Your task to perform on an android device: search for starred emails in the gmail app Image 0: 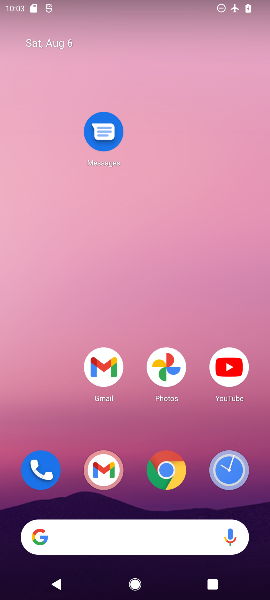
Step 0: drag from (165, 570) to (263, 176)
Your task to perform on an android device: search for starred emails in the gmail app Image 1: 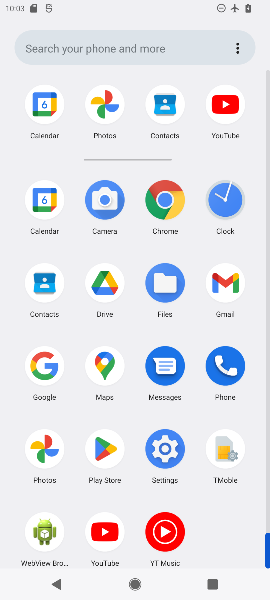
Step 1: click (227, 292)
Your task to perform on an android device: search for starred emails in the gmail app Image 2: 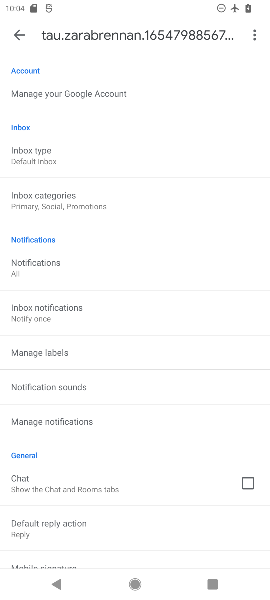
Step 2: click (29, 39)
Your task to perform on an android device: search for starred emails in the gmail app Image 3: 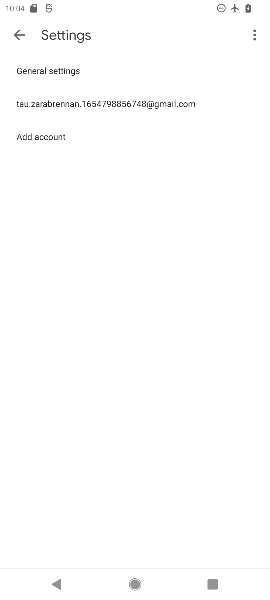
Step 3: click (20, 24)
Your task to perform on an android device: search for starred emails in the gmail app Image 4: 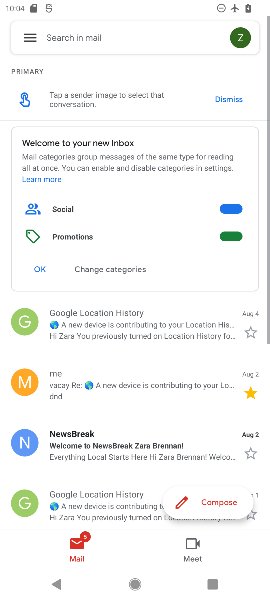
Step 4: click (36, 35)
Your task to perform on an android device: search for starred emails in the gmail app Image 5: 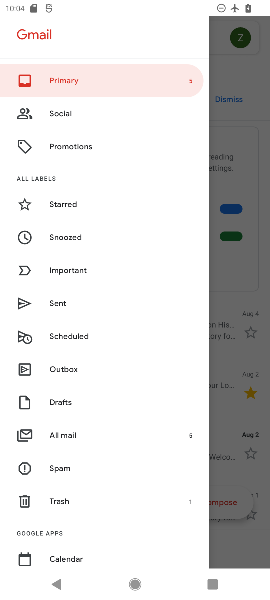
Step 5: click (86, 201)
Your task to perform on an android device: search for starred emails in the gmail app Image 6: 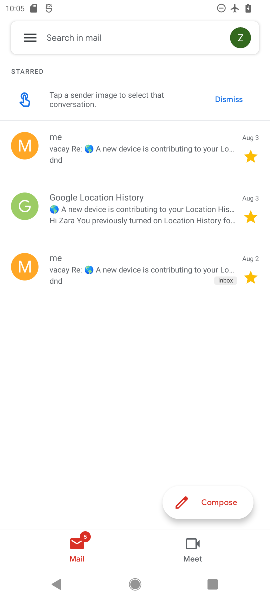
Step 6: task complete